Your task to perform on an android device: check data usage Image 0: 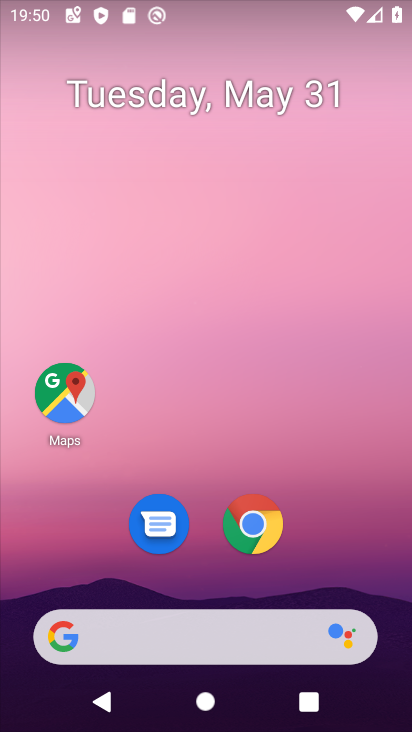
Step 0: drag from (270, 441) to (275, 13)
Your task to perform on an android device: check data usage Image 1: 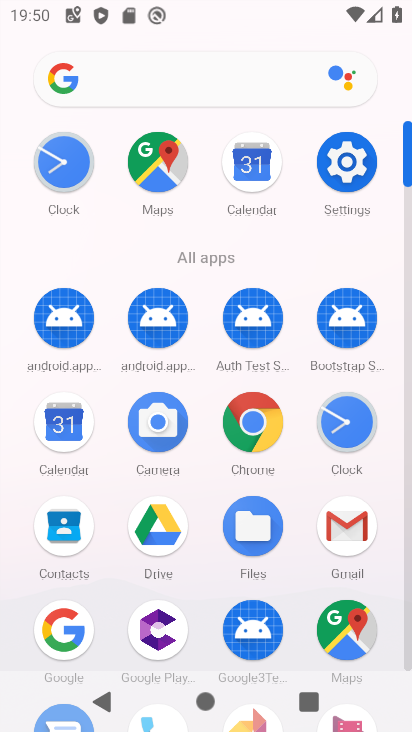
Step 1: click (349, 165)
Your task to perform on an android device: check data usage Image 2: 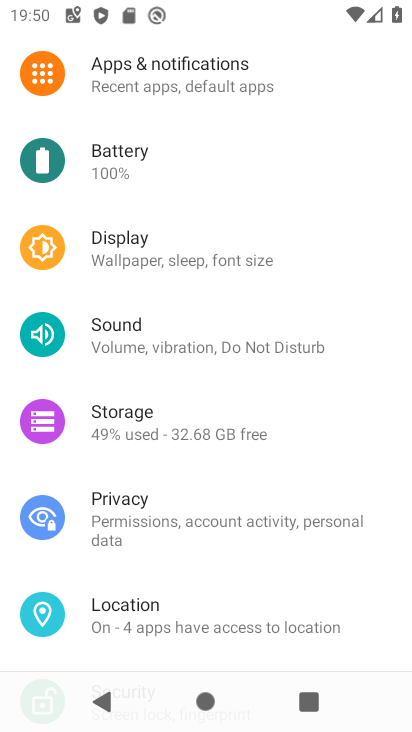
Step 2: drag from (249, 199) to (189, 605)
Your task to perform on an android device: check data usage Image 3: 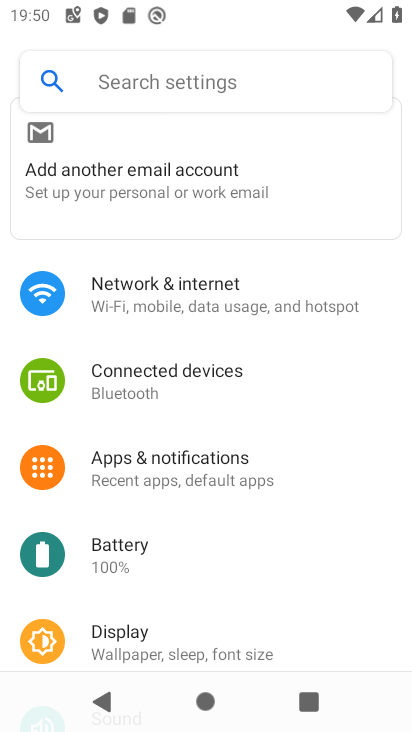
Step 3: click (255, 293)
Your task to perform on an android device: check data usage Image 4: 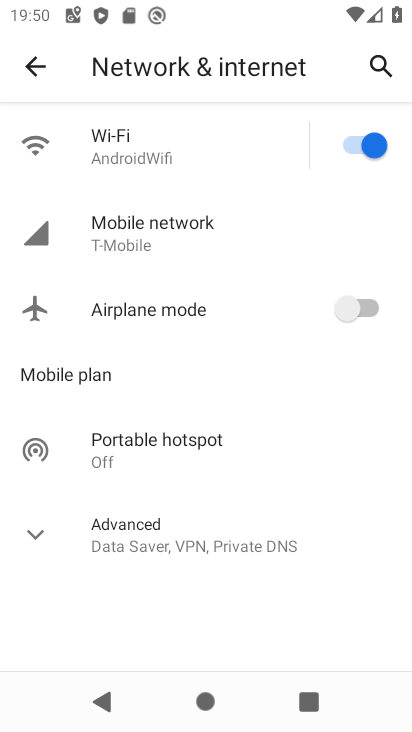
Step 4: click (244, 224)
Your task to perform on an android device: check data usage Image 5: 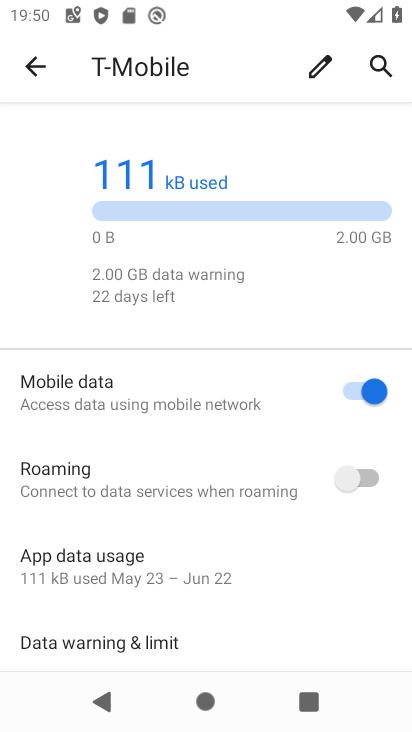
Step 5: task complete